Your task to perform on an android device: snooze an email in the gmail app Image 0: 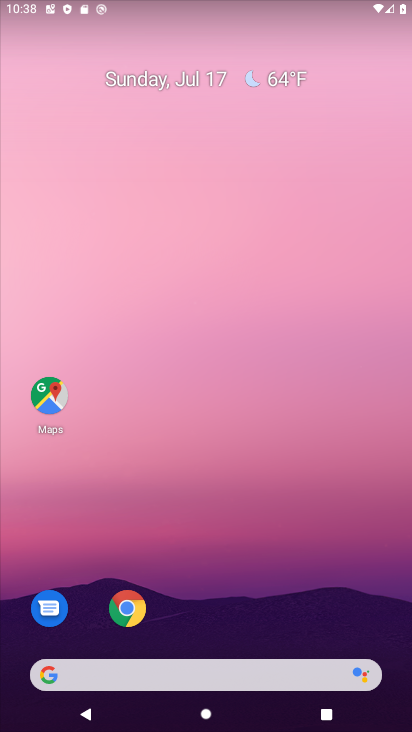
Step 0: drag from (151, 134) to (178, 7)
Your task to perform on an android device: snooze an email in the gmail app Image 1: 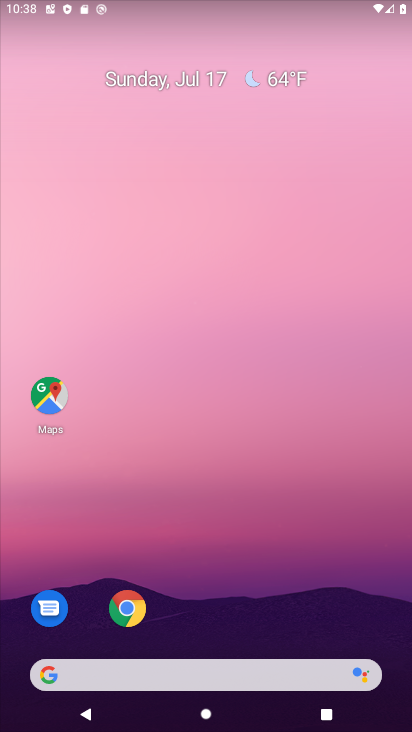
Step 1: click (245, 17)
Your task to perform on an android device: snooze an email in the gmail app Image 2: 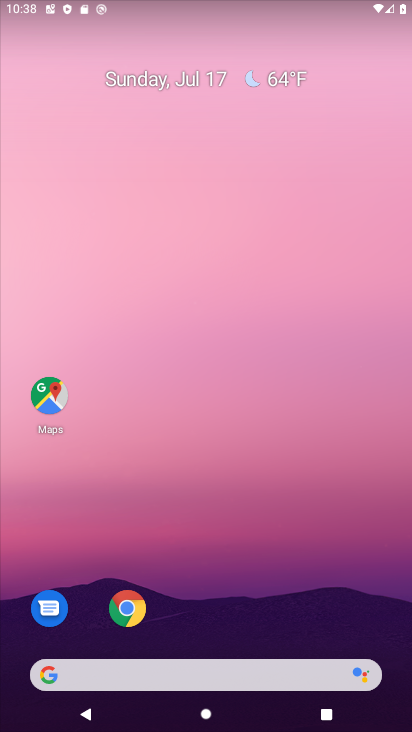
Step 2: drag from (25, 694) to (237, 82)
Your task to perform on an android device: snooze an email in the gmail app Image 3: 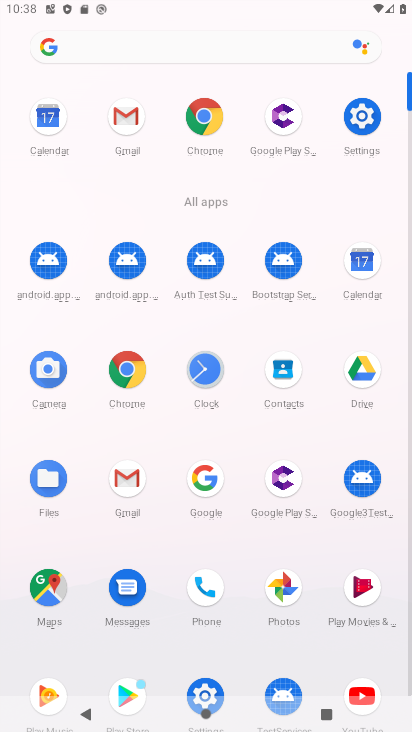
Step 3: click (174, 487)
Your task to perform on an android device: snooze an email in the gmail app Image 4: 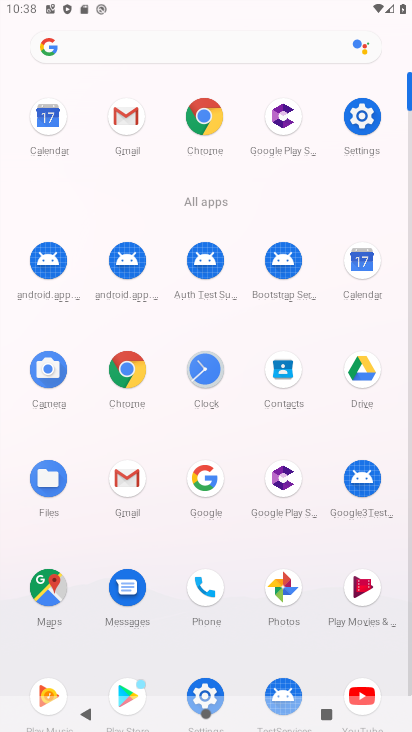
Step 4: click (134, 490)
Your task to perform on an android device: snooze an email in the gmail app Image 5: 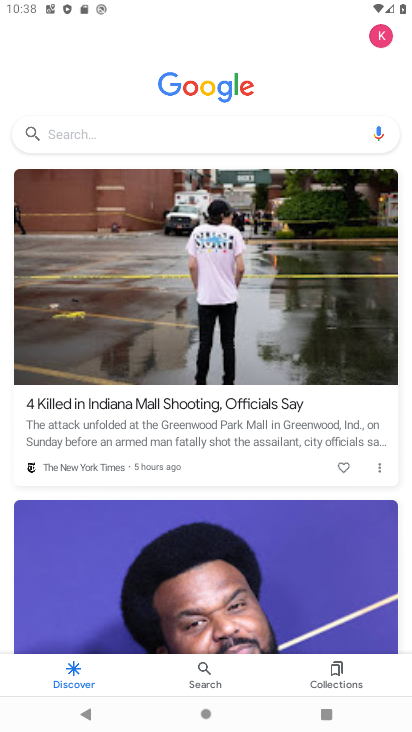
Step 5: click (321, 28)
Your task to perform on an android device: snooze an email in the gmail app Image 6: 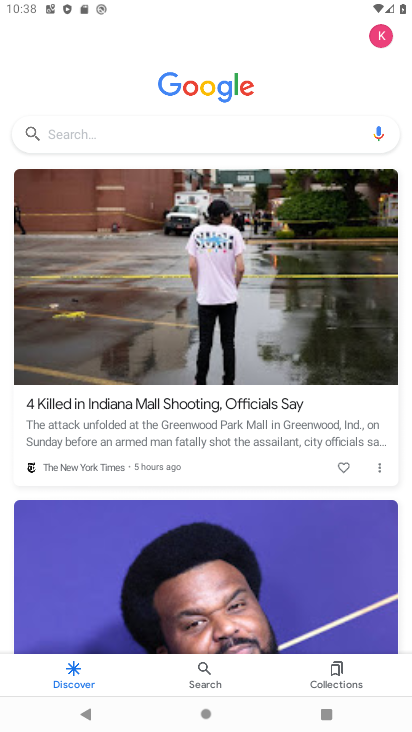
Step 6: press home button
Your task to perform on an android device: snooze an email in the gmail app Image 7: 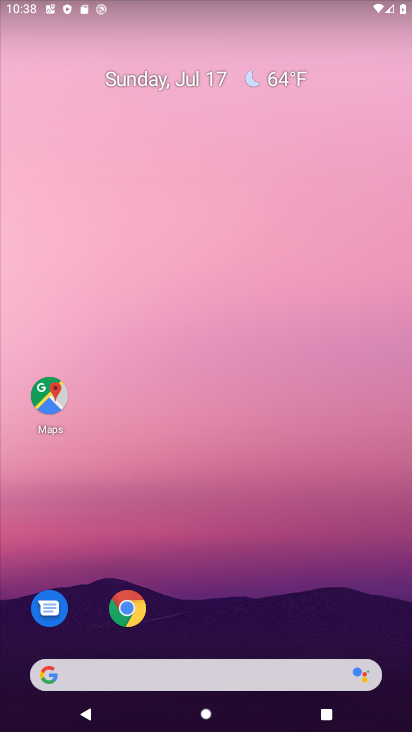
Step 7: drag from (24, 712) to (203, 26)
Your task to perform on an android device: snooze an email in the gmail app Image 8: 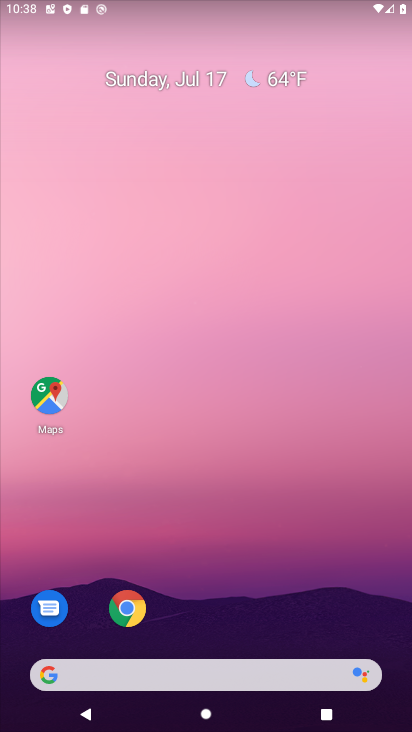
Step 8: drag from (20, 692) to (151, 4)
Your task to perform on an android device: snooze an email in the gmail app Image 9: 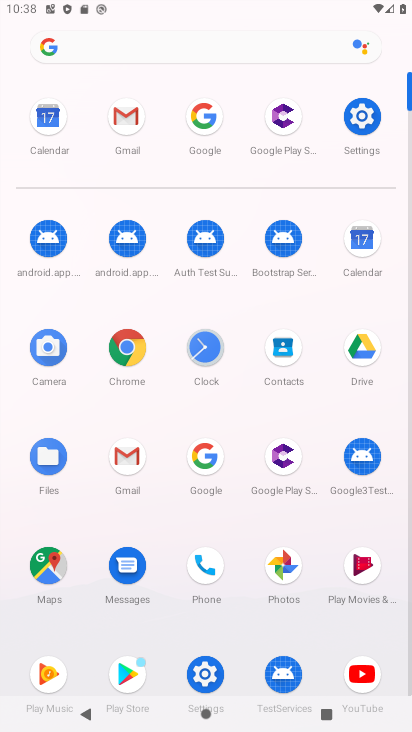
Step 9: click (127, 449)
Your task to perform on an android device: snooze an email in the gmail app Image 10: 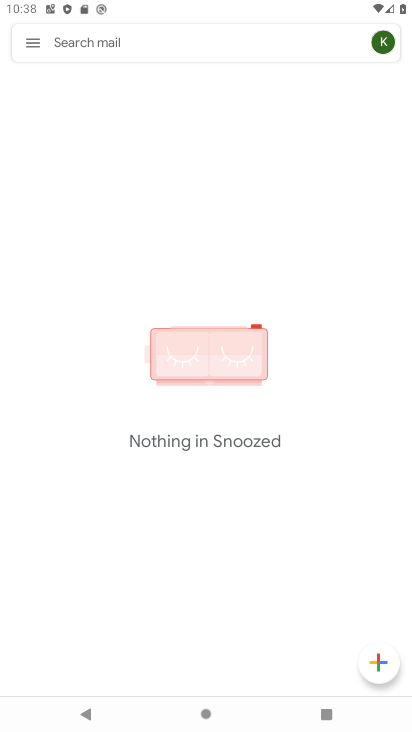
Step 10: click (33, 46)
Your task to perform on an android device: snooze an email in the gmail app Image 11: 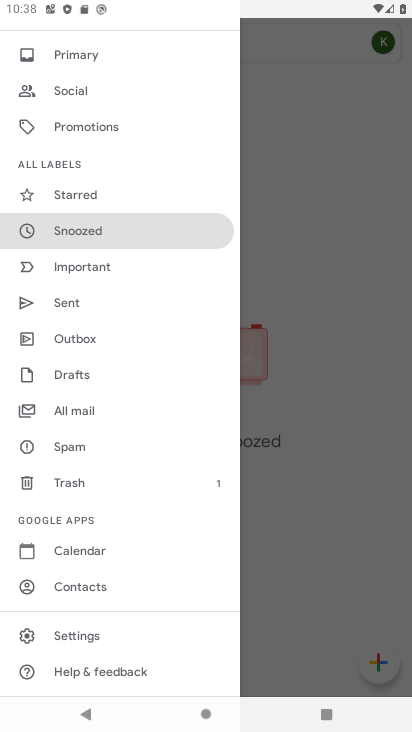
Step 11: click (72, 234)
Your task to perform on an android device: snooze an email in the gmail app Image 12: 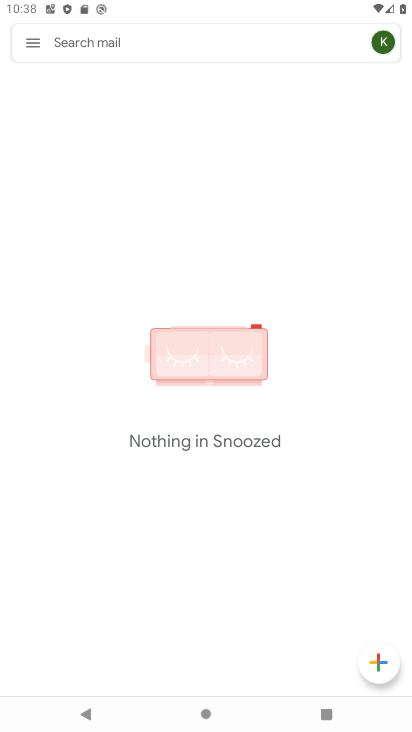
Step 12: task complete